Your task to perform on an android device: uninstall "Upside-Cash back on gas & food" Image 0: 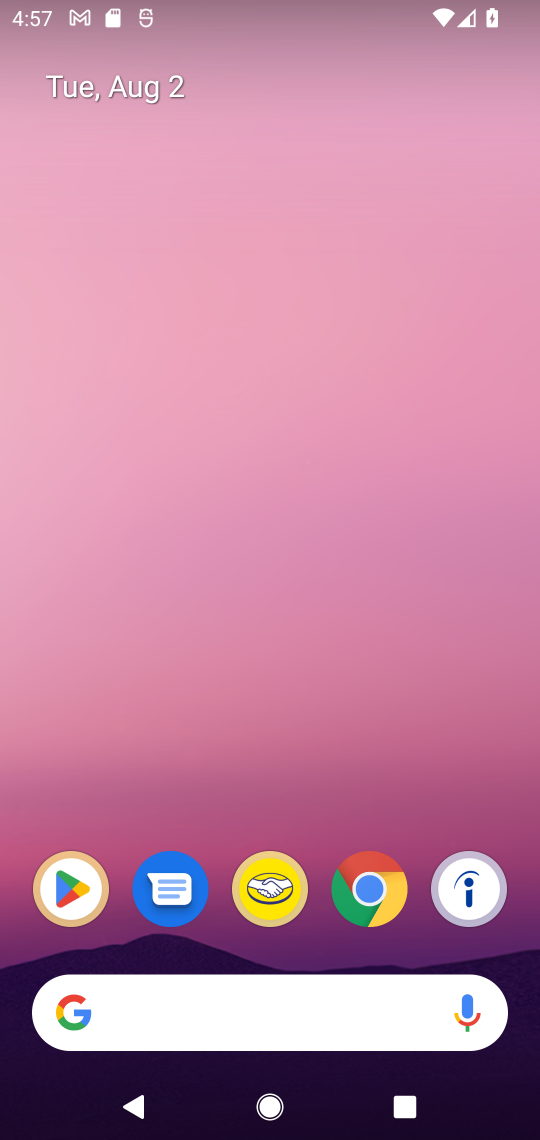
Step 0: press home button
Your task to perform on an android device: uninstall "Upside-Cash back on gas & food" Image 1: 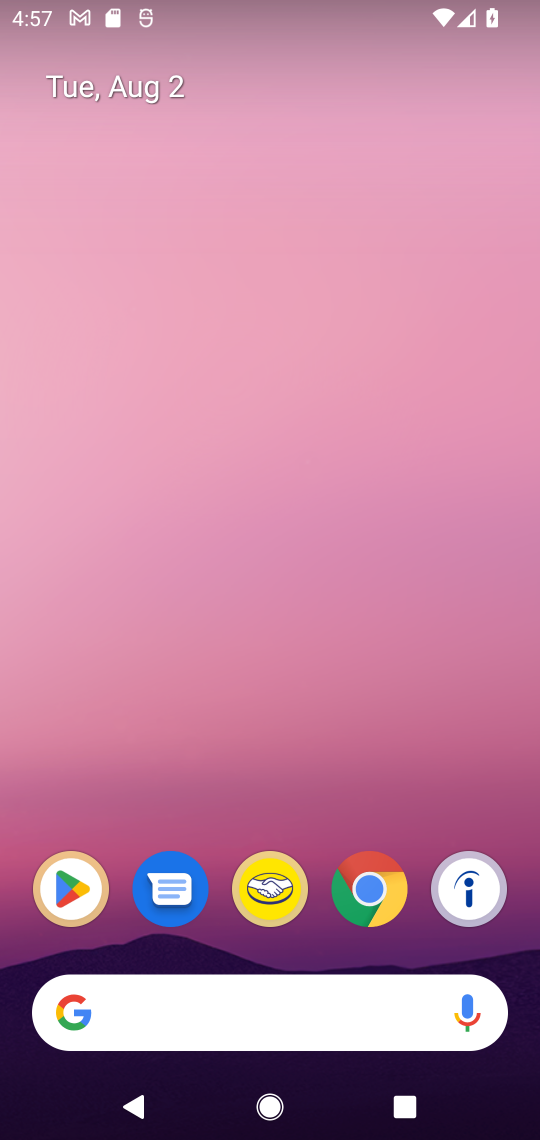
Step 1: drag from (435, 783) to (408, 131)
Your task to perform on an android device: uninstall "Upside-Cash back on gas & food" Image 2: 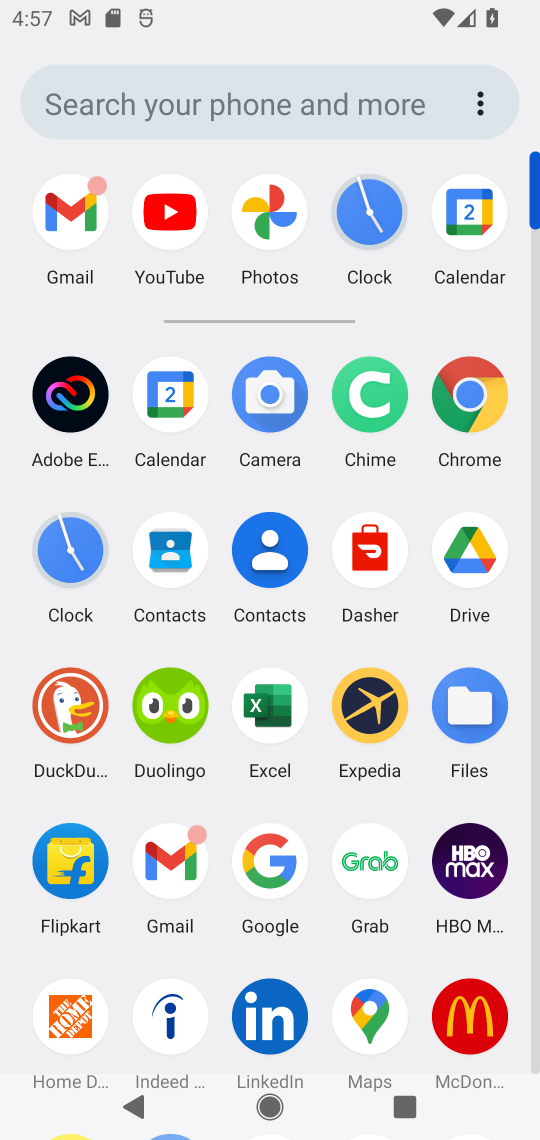
Step 2: drag from (506, 954) to (489, 485)
Your task to perform on an android device: uninstall "Upside-Cash back on gas & food" Image 3: 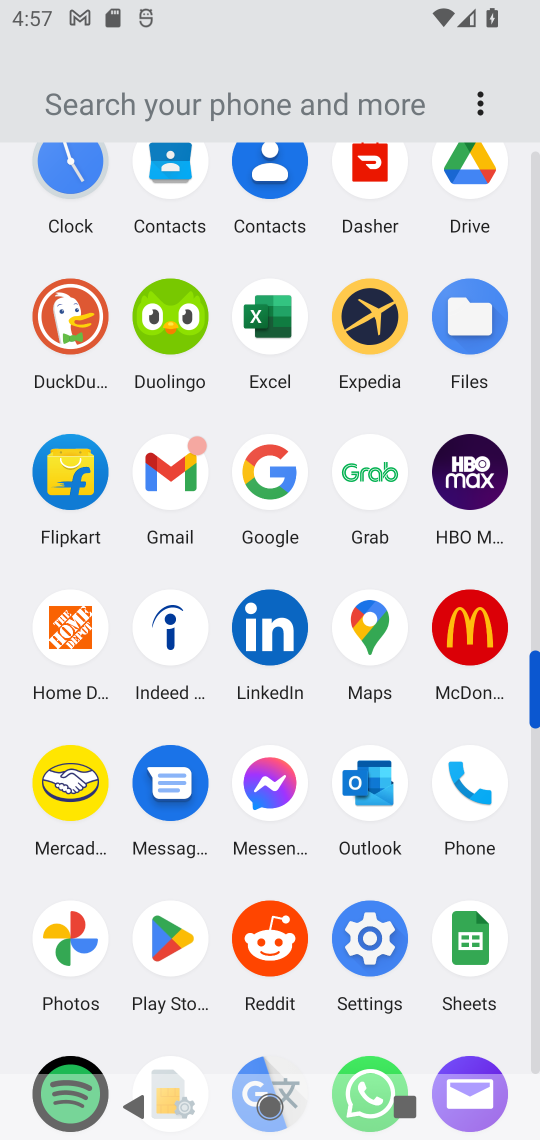
Step 3: click (172, 936)
Your task to perform on an android device: uninstall "Upside-Cash back on gas & food" Image 4: 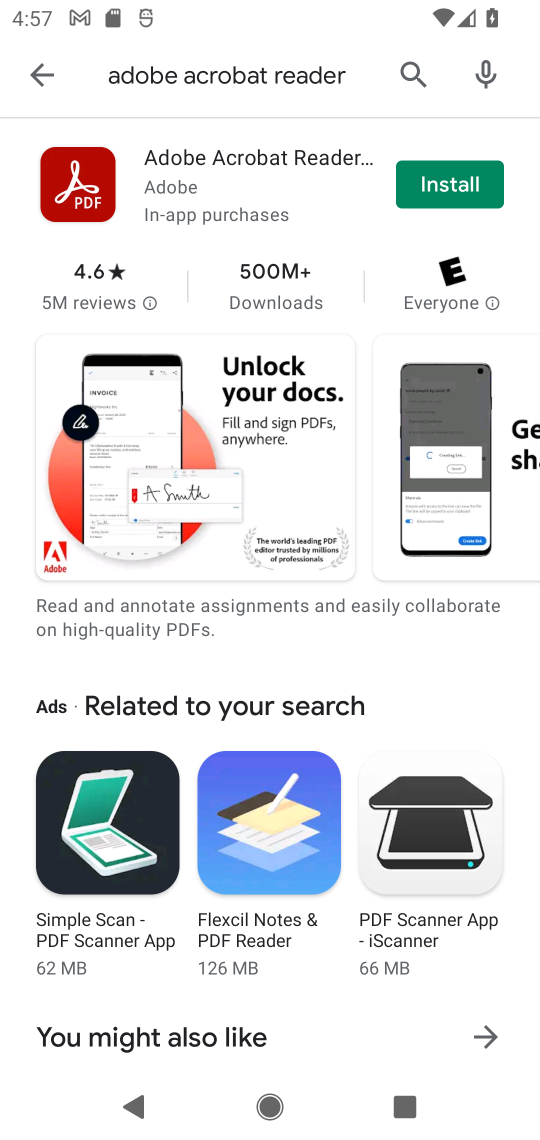
Step 4: click (410, 74)
Your task to perform on an android device: uninstall "Upside-Cash back on gas & food" Image 5: 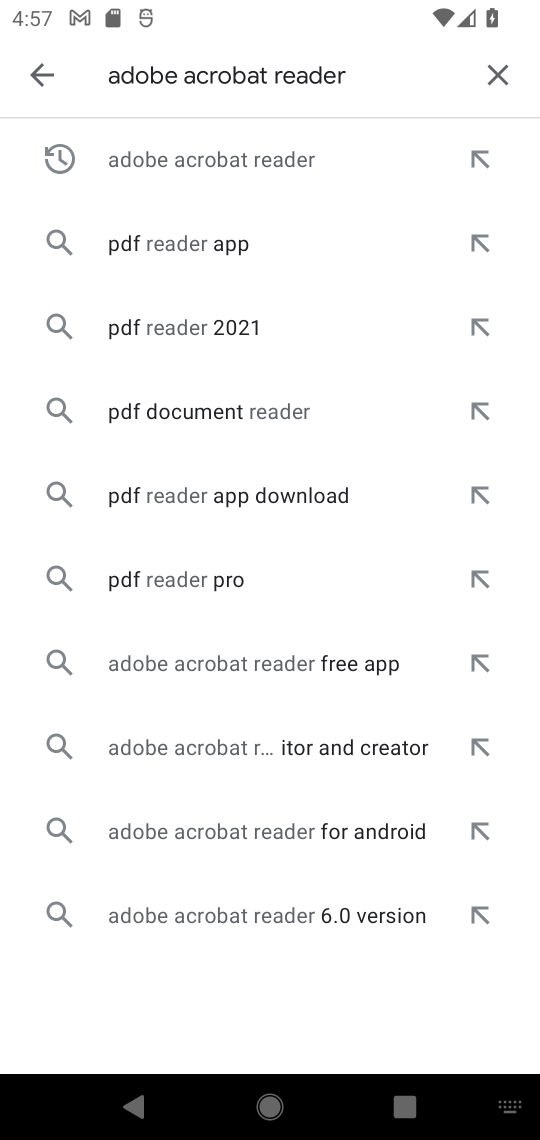
Step 5: click (504, 74)
Your task to perform on an android device: uninstall "Upside-Cash back on gas & food" Image 6: 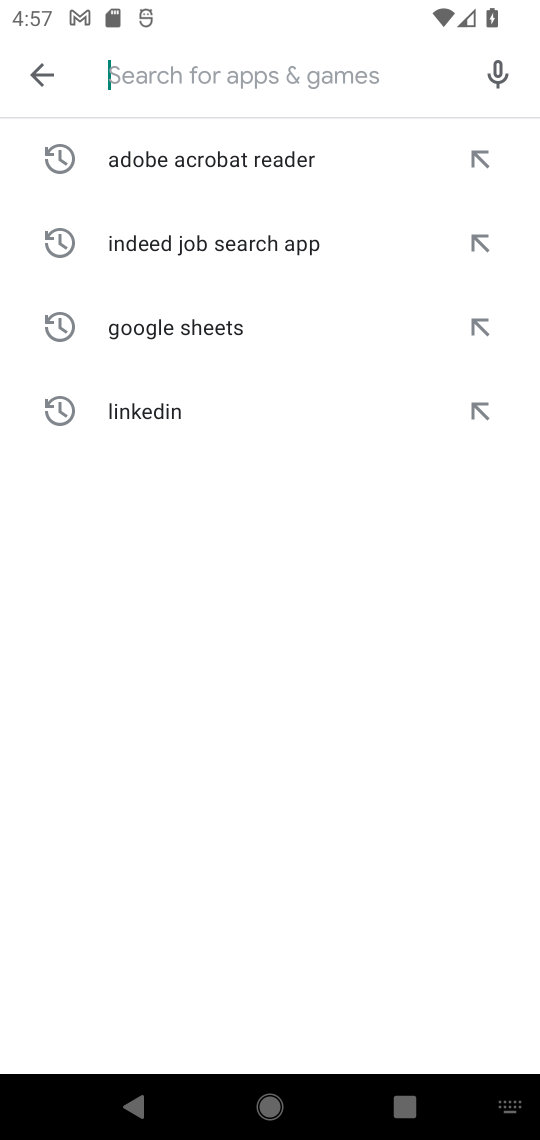
Step 6: type "upside cash back on gas food"
Your task to perform on an android device: uninstall "Upside-Cash back on gas & food" Image 7: 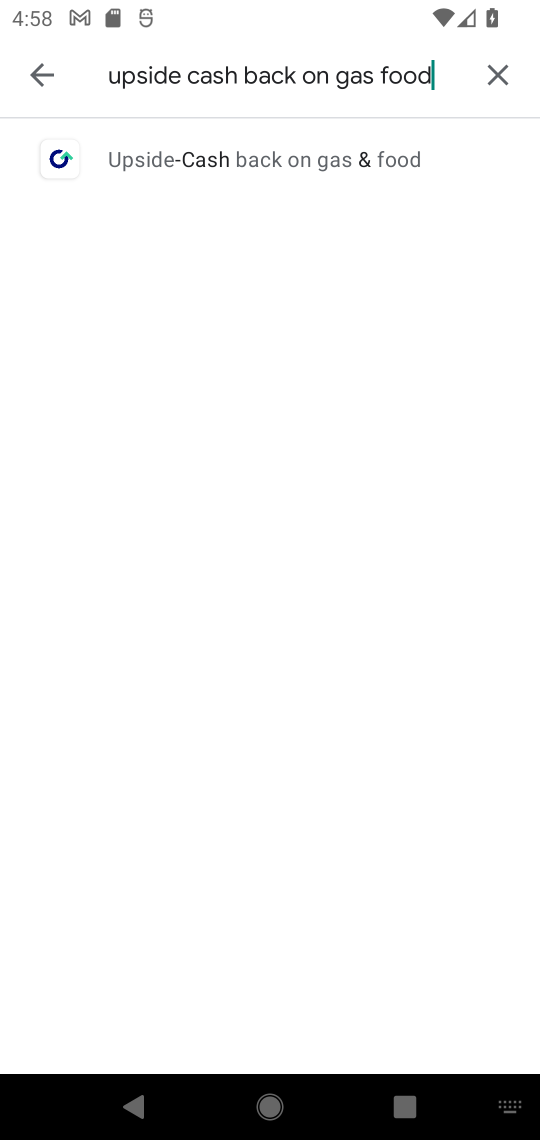
Step 7: click (359, 145)
Your task to perform on an android device: uninstall "Upside-Cash back on gas & food" Image 8: 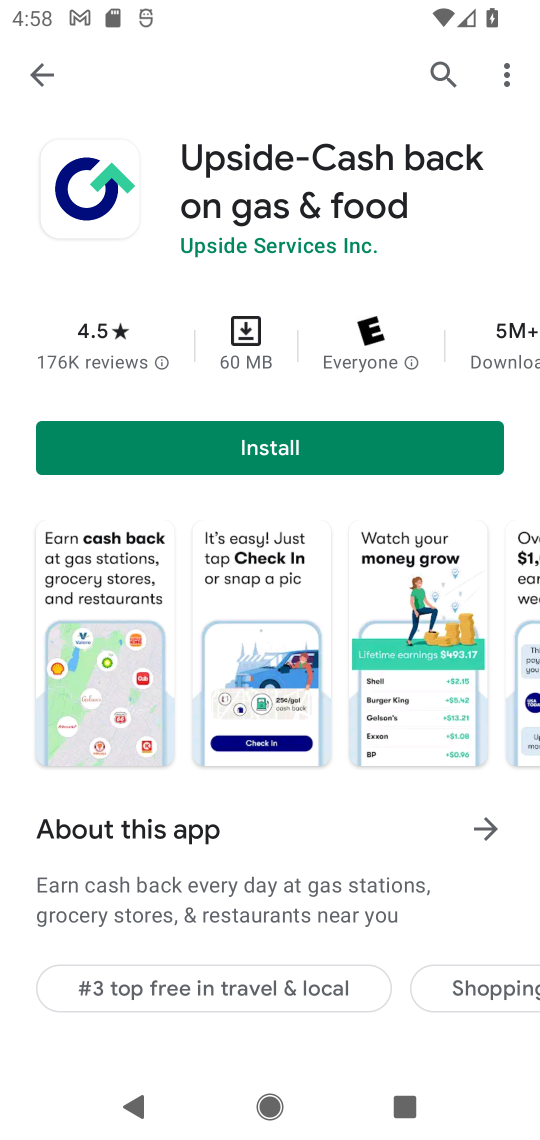
Step 8: task complete